Your task to perform on an android device: Open Google Chrome and open the bookmarks view Image 0: 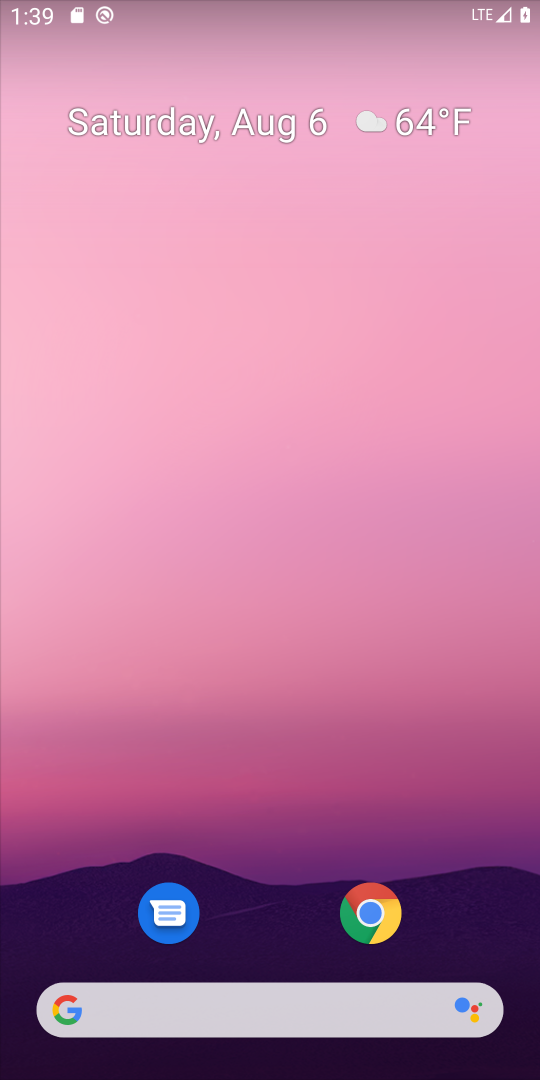
Step 0: press home button
Your task to perform on an android device: Open Google Chrome and open the bookmarks view Image 1: 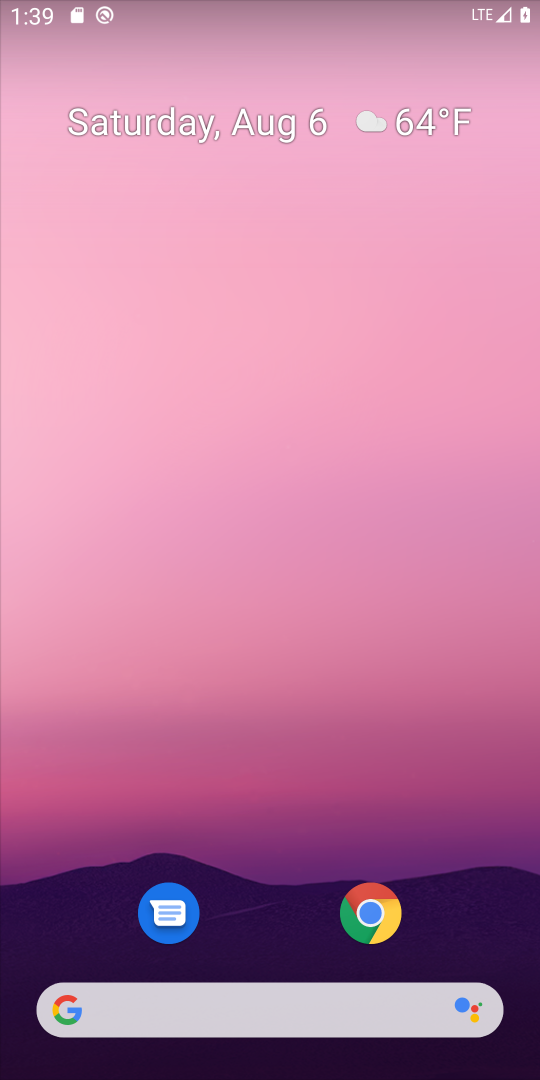
Step 1: drag from (442, 907) to (452, 253)
Your task to perform on an android device: Open Google Chrome and open the bookmarks view Image 2: 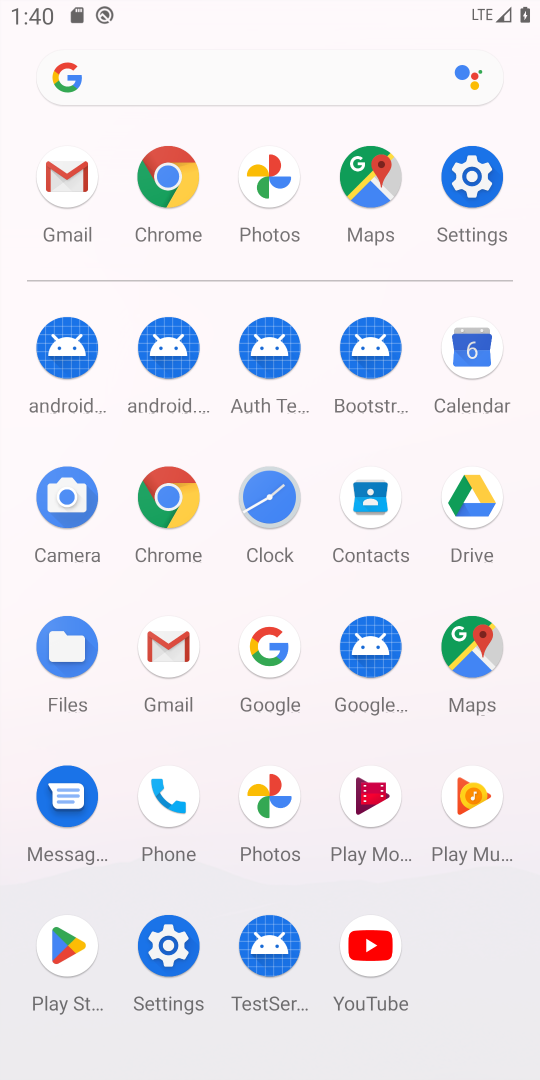
Step 2: click (165, 500)
Your task to perform on an android device: Open Google Chrome and open the bookmarks view Image 3: 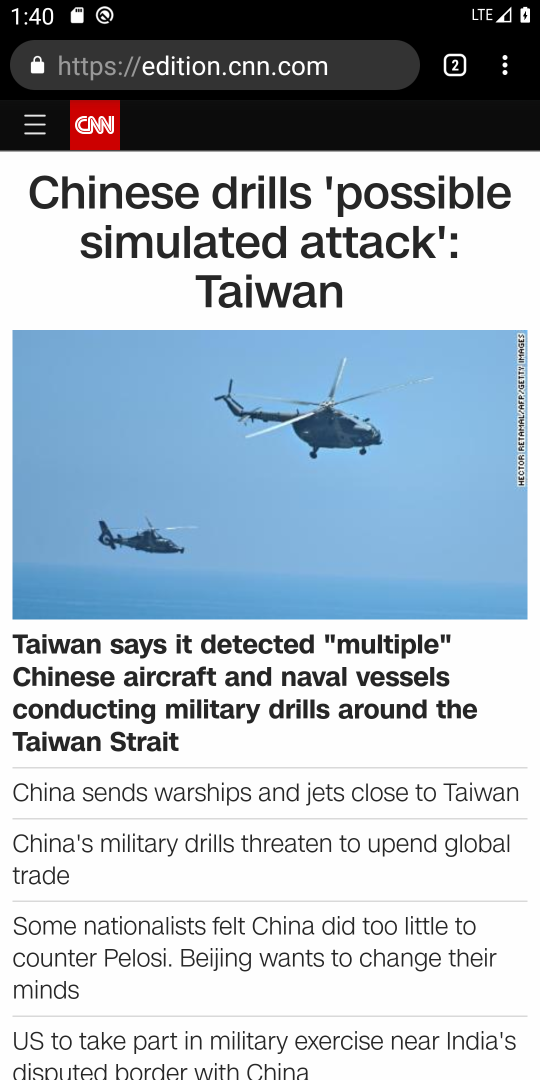
Step 3: click (504, 64)
Your task to perform on an android device: Open Google Chrome and open the bookmarks view Image 4: 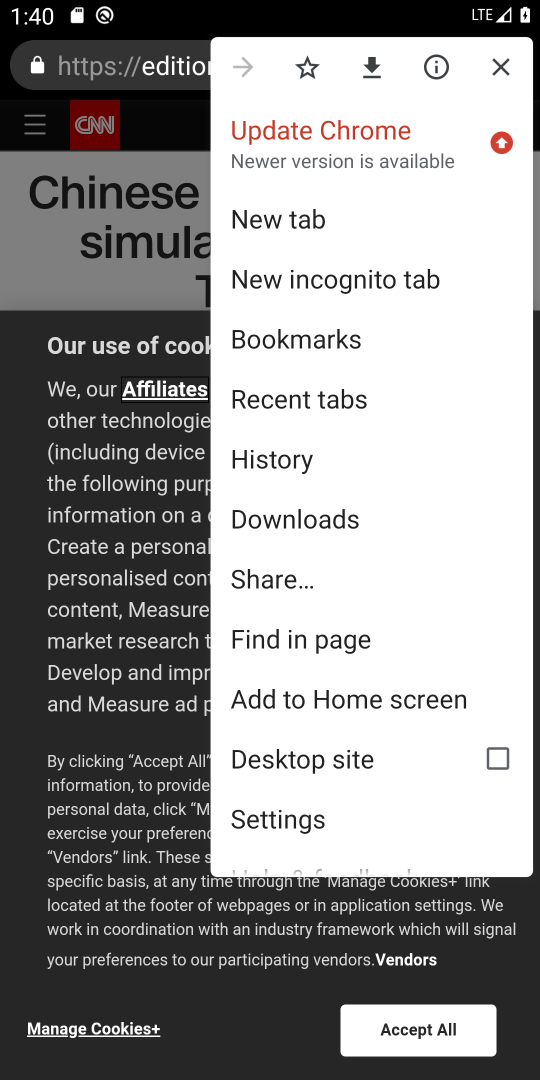
Step 4: click (359, 343)
Your task to perform on an android device: Open Google Chrome and open the bookmarks view Image 5: 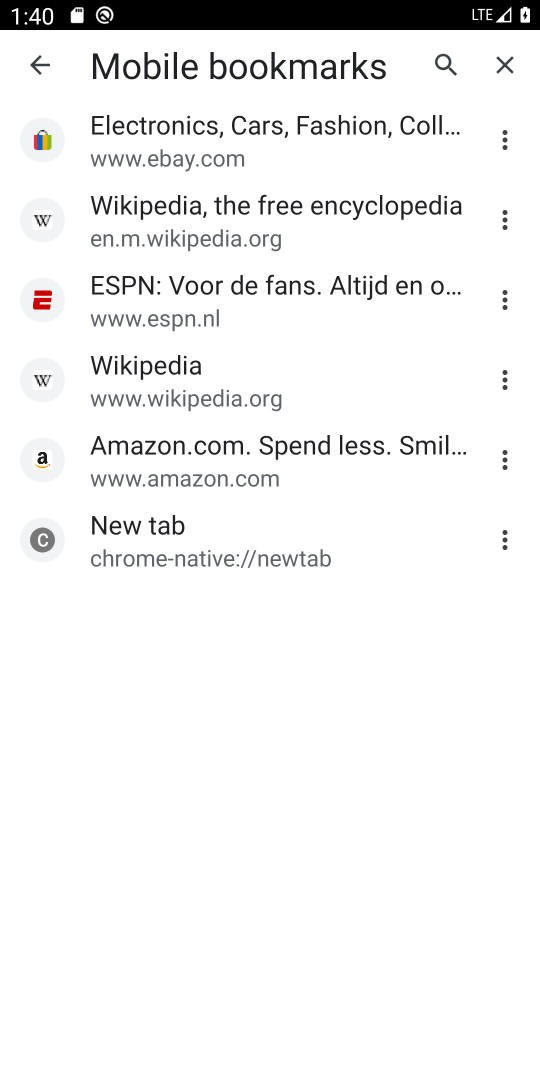
Step 5: task complete